Your task to perform on an android device: Open Google Maps Image 0: 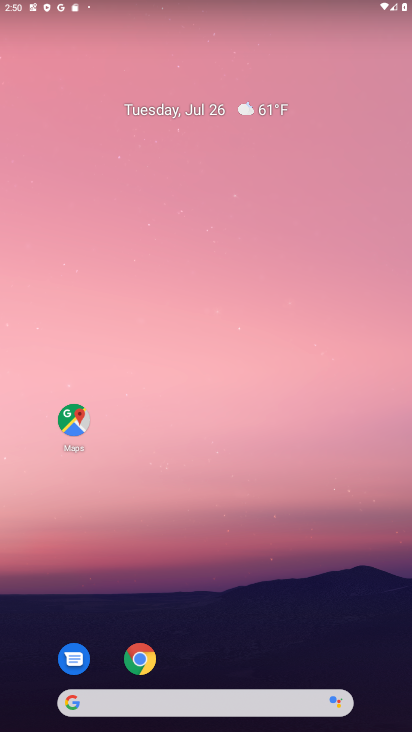
Step 0: click (68, 406)
Your task to perform on an android device: Open Google Maps Image 1: 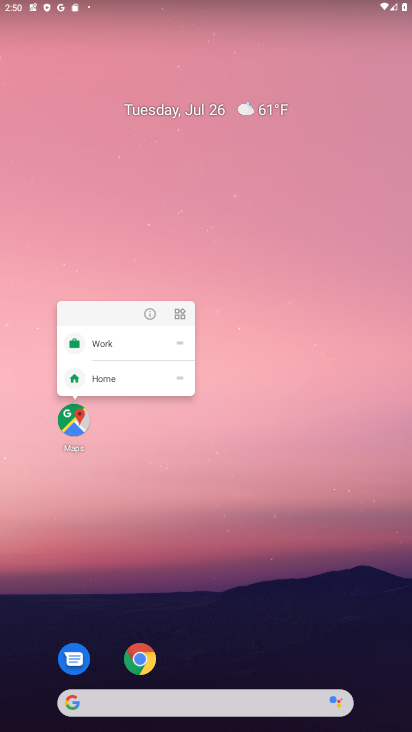
Step 1: click (65, 410)
Your task to perform on an android device: Open Google Maps Image 2: 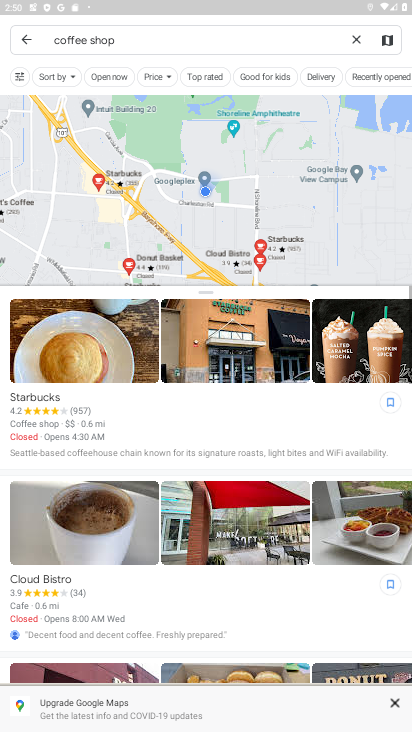
Step 2: click (22, 37)
Your task to perform on an android device: Open Google Maps Image 3: 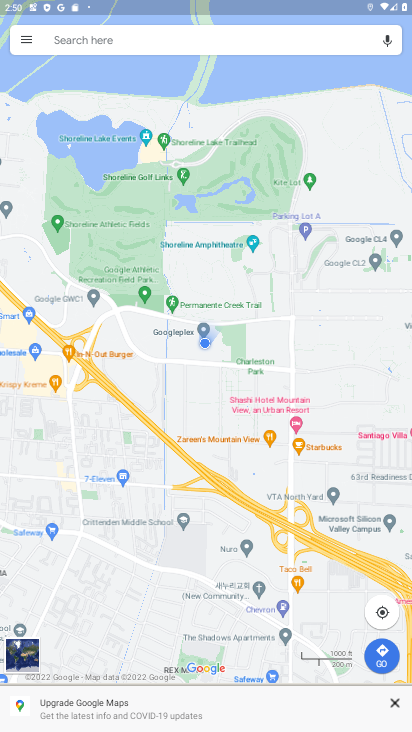
Step 3: task complete